Your task to perform on an android device: toggle improve location accuracy Image 0: 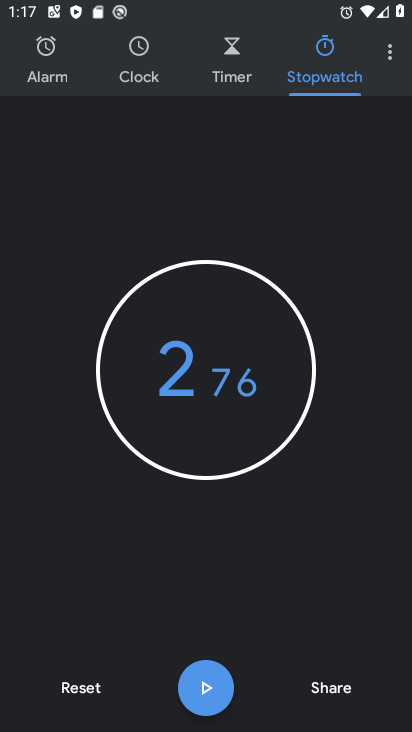
Step 0: press home button
Your task to perform on an android device: toggle improve location accuracy Image 1: 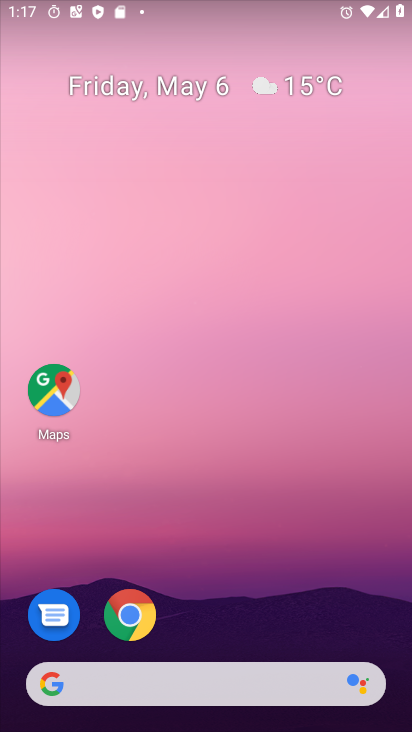
Step 1: drag from (270, 568) to (257, 26)
Your task to perform on an android device: toggle improve location accuracy Image 2: 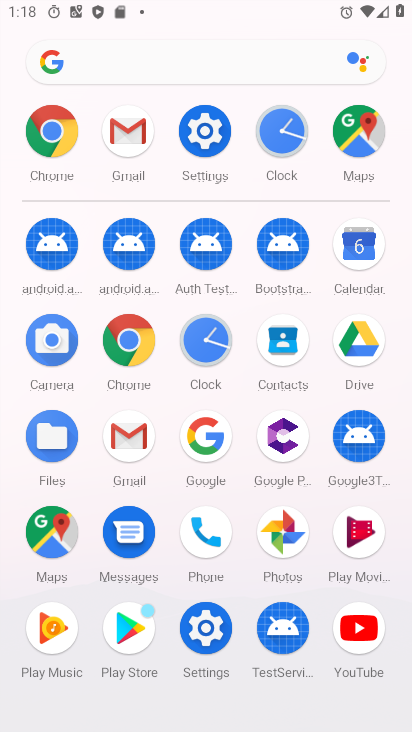
Step 2: click (195, 127)
Your task to perform on an android device: toggle improve location accuracy Image 3: 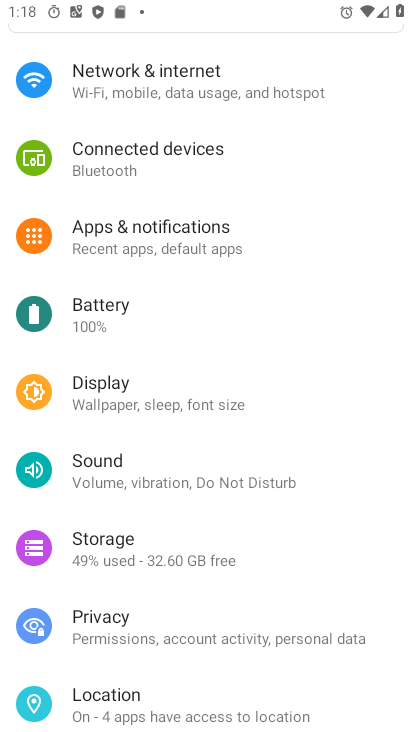
Step 3: click (237, 706)
Your task to perform on an android device: toggle improve location accuracy Image 4: 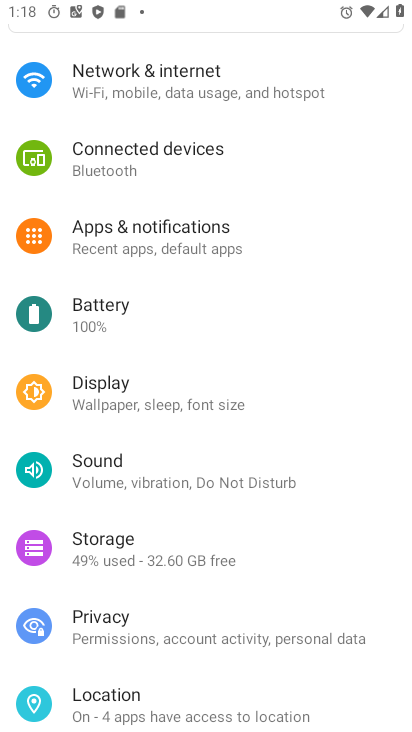
Step 4: drag from (289, 565) to (295, 258)
Your task to perform on an android device: toggle improve location accuracy Image 5: 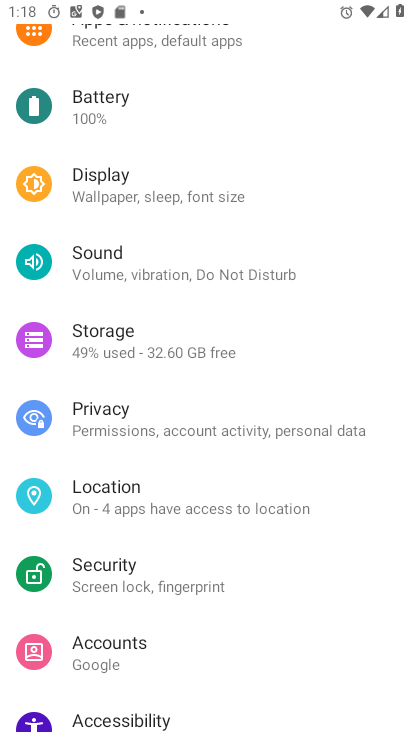
Step 5: click (204, 506)
Your task to perform on an android device: toggle improve location accuracy Image 6: 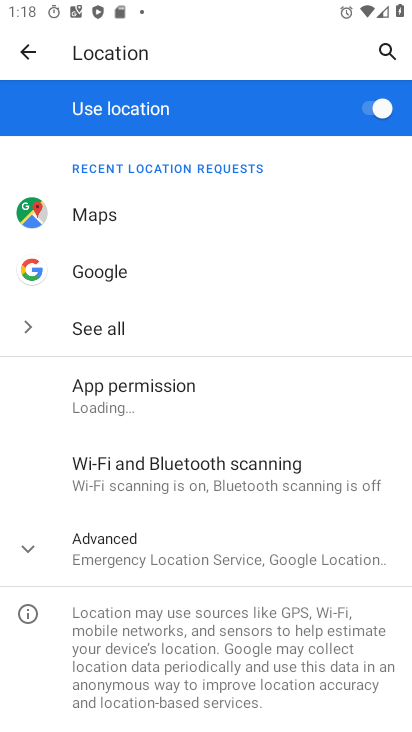
Step 6: click (25, 538)
Your task to perform on an android device: toggle improve location accuracy Image 7: 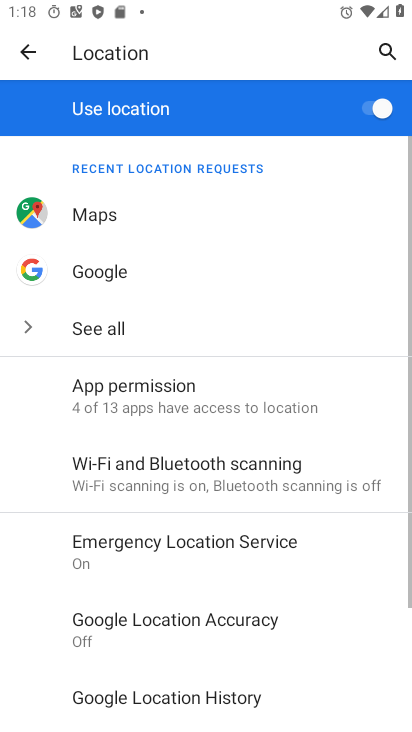
Step 7: click (264, 638)
Your task to perform on an android device: toggle improve location accuracy Image 8: 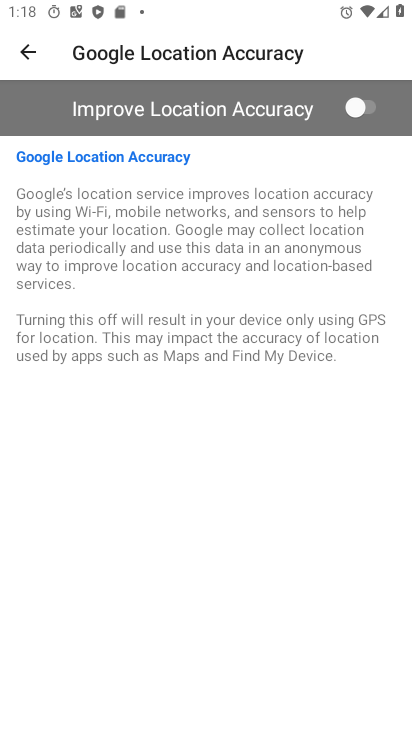
Step 8: click (358, 97)
Your task to perform on an android device: toggle improve location accuracy Image 9: 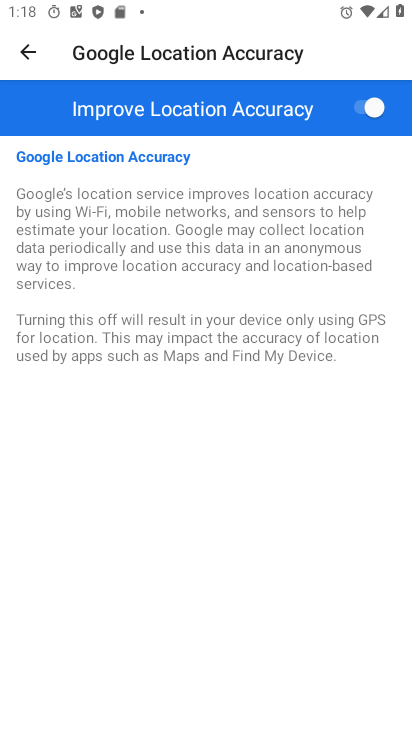
Step 9: task complete